Your task to perform on an android device: search for starred emails in the gmail app Image 0: 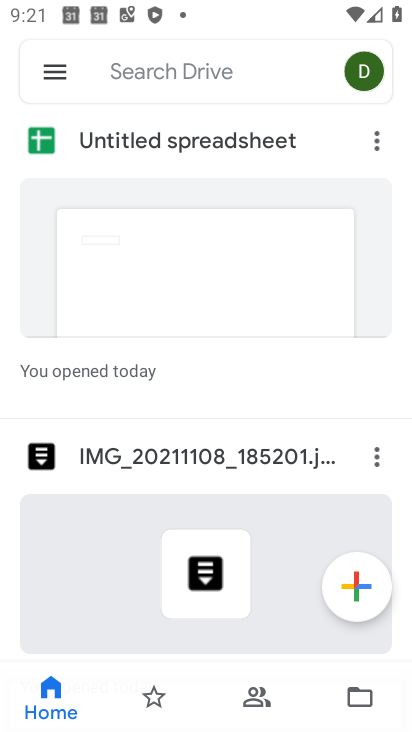
Step 0: press home button
Your task to perform on an android device: search for starred emails in the gmail app Image 1: 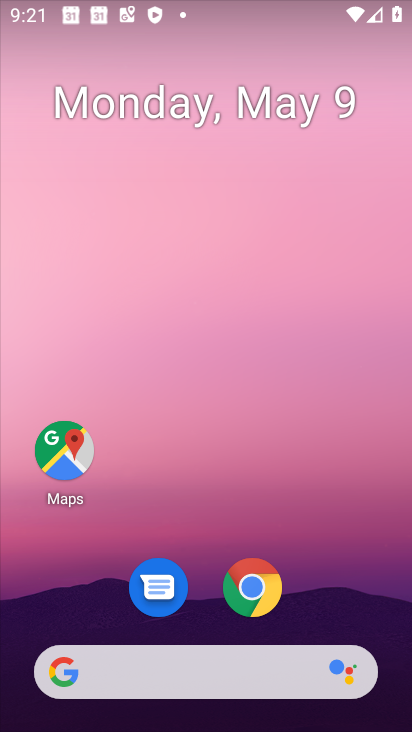
Step 1: drag from (215, 631) to (269, 16)
Your task to perform on an android device: search for starred emails in the gmail app Image 2: 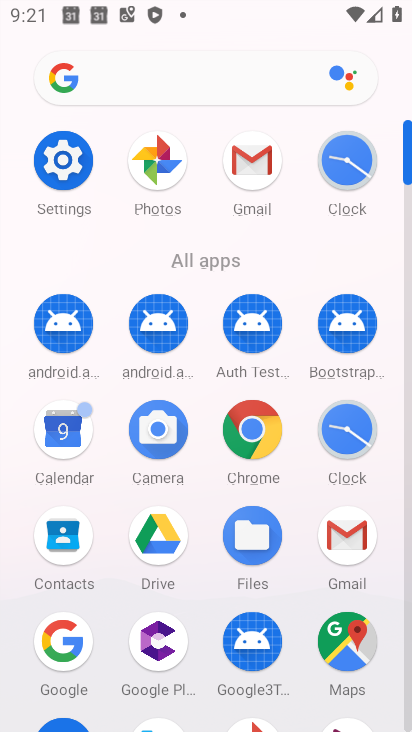
Step 2: click (265, 157)
Your task to perform on an android device: search for starred emails in the gmail app Image 3: 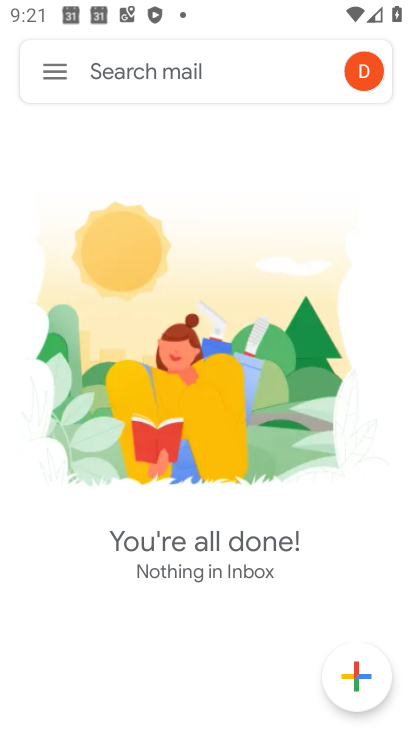
Step 3: click (61, 86)
Your task to perform on an android device: search for starred emails in the gmail app Image 4: 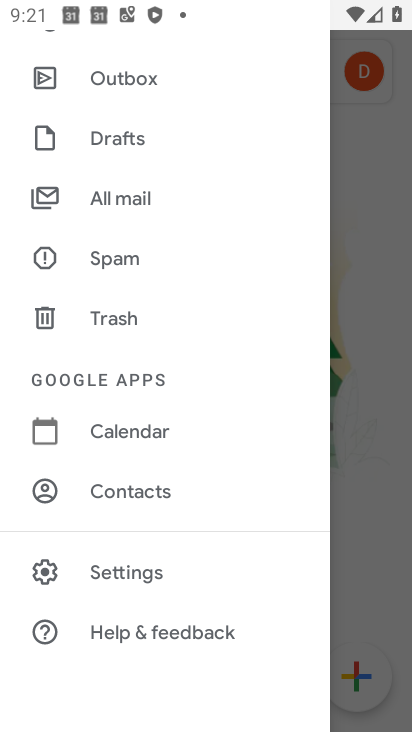
Step 4: drag from (206, 123) to (195, 663)
Your task to perform on an android device: search for starred emails in the gmail app Image 5: 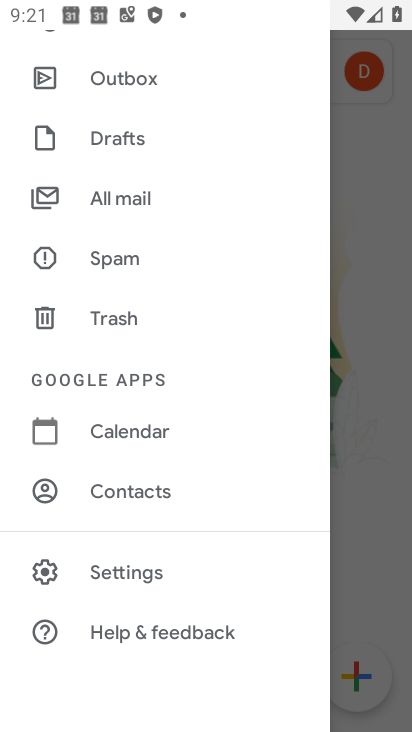
Step 5: drag from (143, 132) to (185, 657)
Your task to perform on an android device: search for starred emails in the gmail app Image 6: 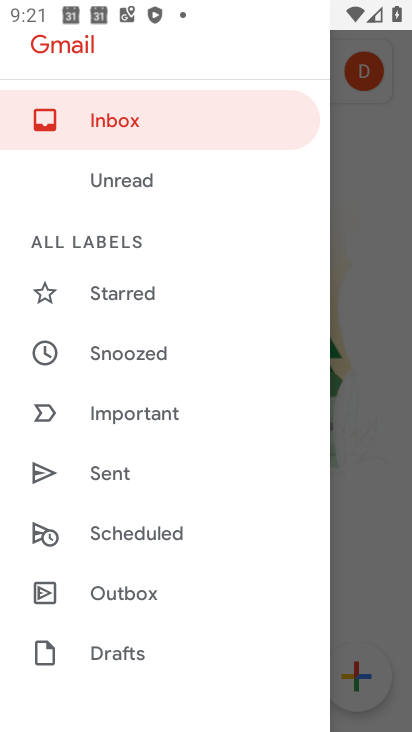
Step 6: click (120, 309)
Your task to perform on an android device: search for starred emails in the gmail app Image 7: 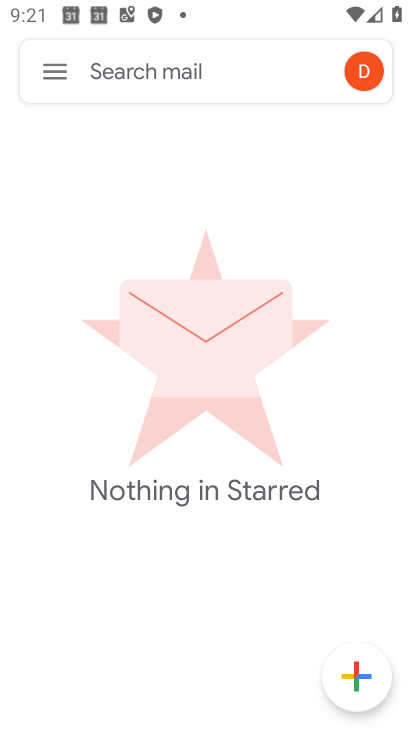
Step 7: task complete